Your task to perform on an android device: Show me popular videos on Youtube Image 0: 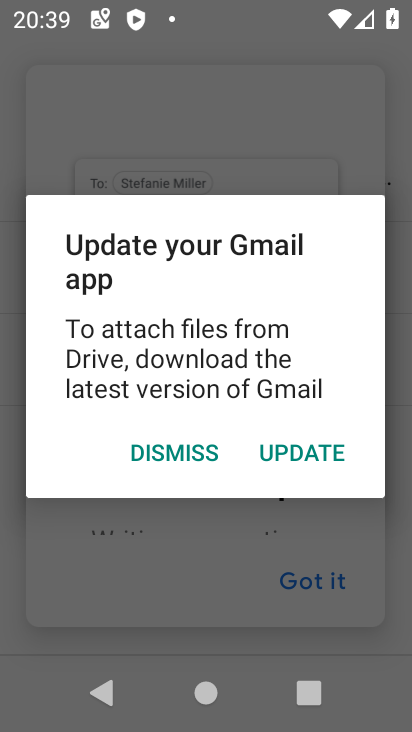
Step 0: press home button
Your task to perform on an android device: Show me popular videos on Youtube Image 1: 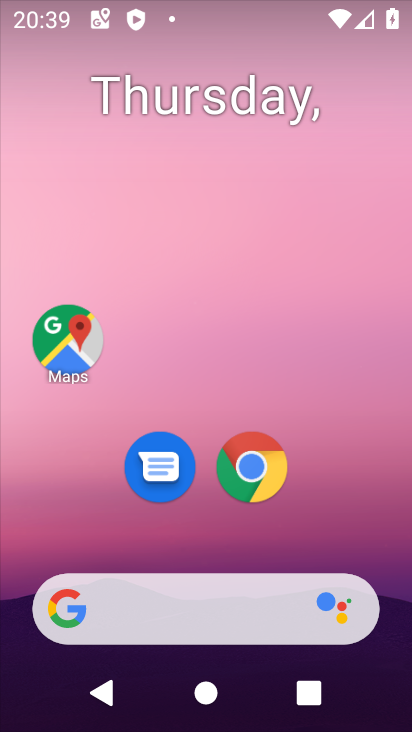
Step 1: drag from (340, 478) to (375, 258)
Your task to perform on an android device: Show me popular videos on Youtube Image 2: 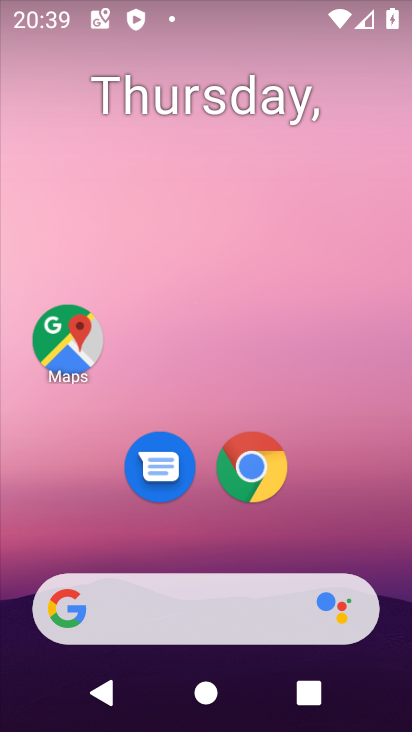
Step 2: click (384, 279)
Your task to perform on an android device: Show me popular videos on Youtube Image 3: 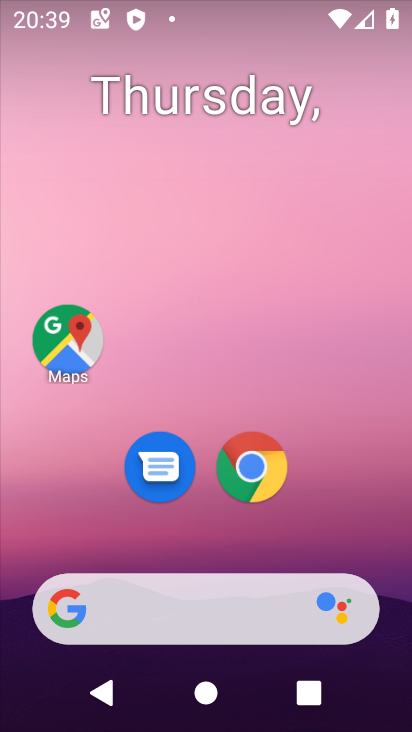
Step 3: drag from (255, 425) to (255, 241)
Your task to perform on an android device: Show me popular videos on Youtube Image 4: 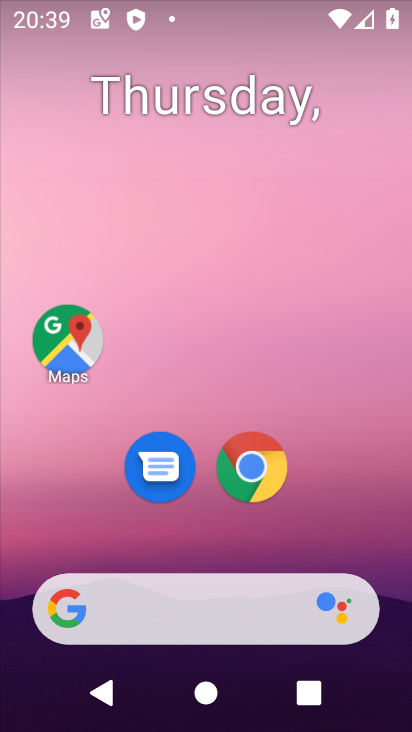
Step 4: drag from (273, 491) to (274, 286)
Your task to perform on an android device: Show me popular videos on Youtube Image 5: 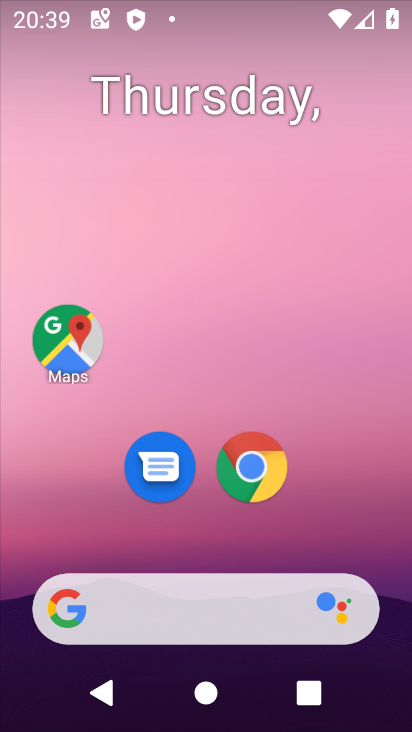
Step 5: drag from (229, 574) to (273, 246)
Your task to perform on an android device: Show me popular videos on Youtube Image 6: 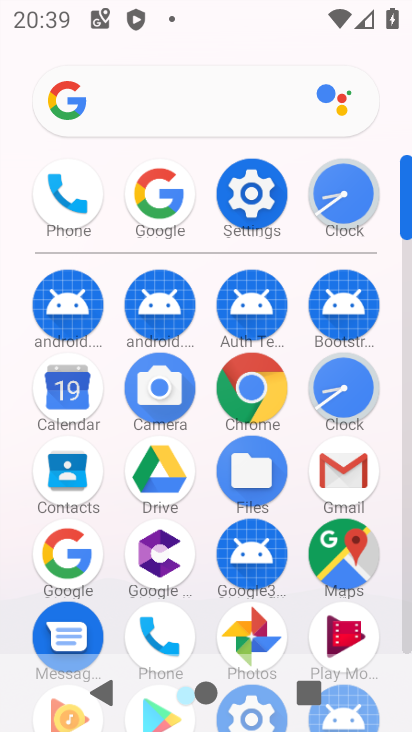
Step 6: drag from (211, 609) to (336, 184)
Your task to perform on an android device: Show me popular videos on Youtube Image 7: 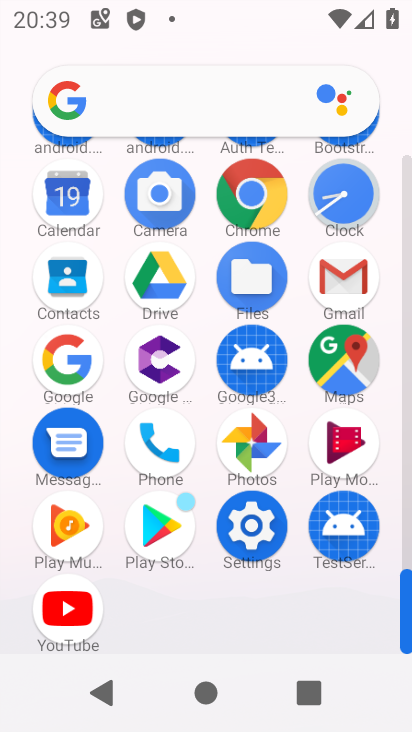
Step 7: click (70, 607)
Your task to perform on an android device: Show me popular videos on Youtube Image 8: 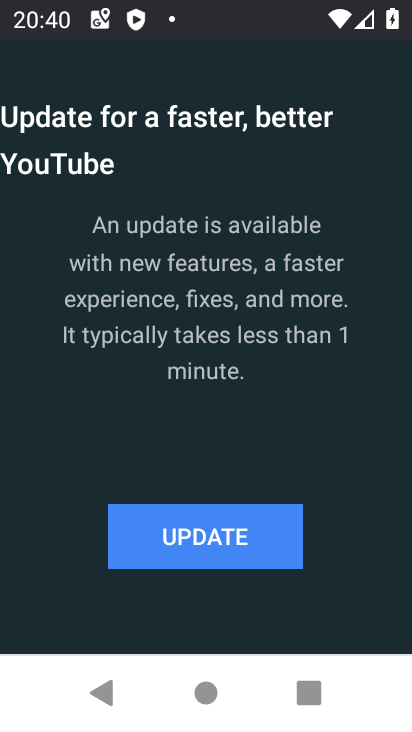
Step 8: task complete